Your task to perform on an android device: all mails in gmail Image 0: 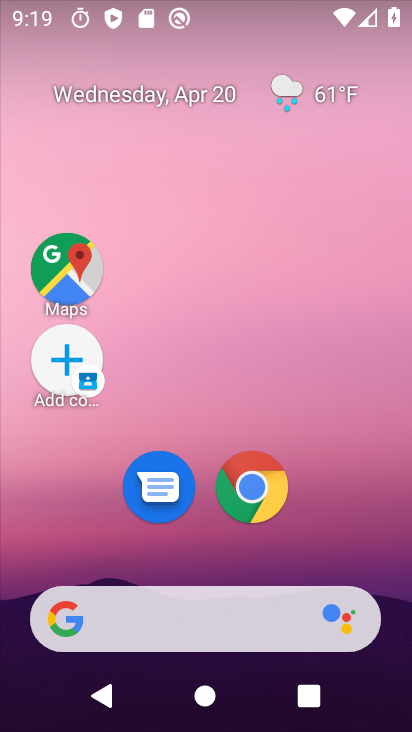
Step 0: drag from (361, 552) to (407, 13)
Your task to perform on an android device: all mails in gmail Image 1: 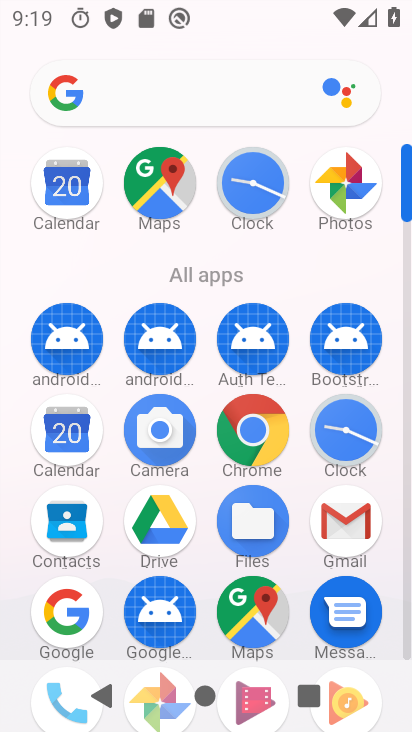
Step 1: click (331, 499)
Your task to perform on an android device: all mails in gmail Image 2: 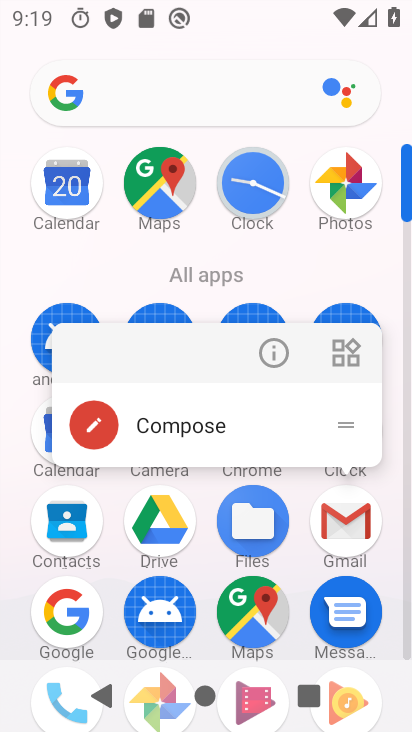
Step 2: click (332, 497)
Your task to perform on an android device: all mails in gmail Image 3: 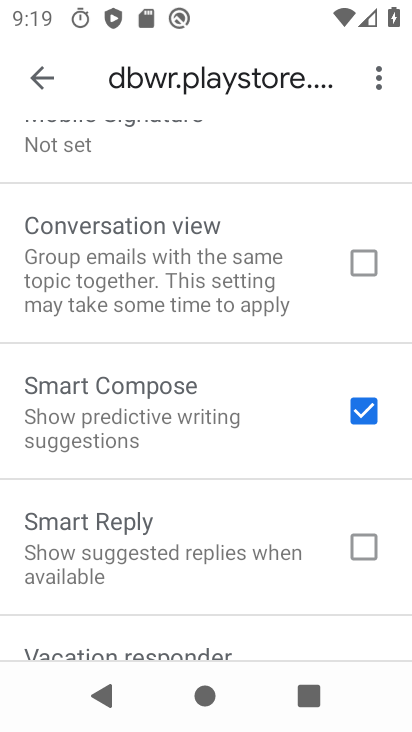
Step 3: click (48, 69)
Your task to perform on an android device: all mails in gmail Image 4: 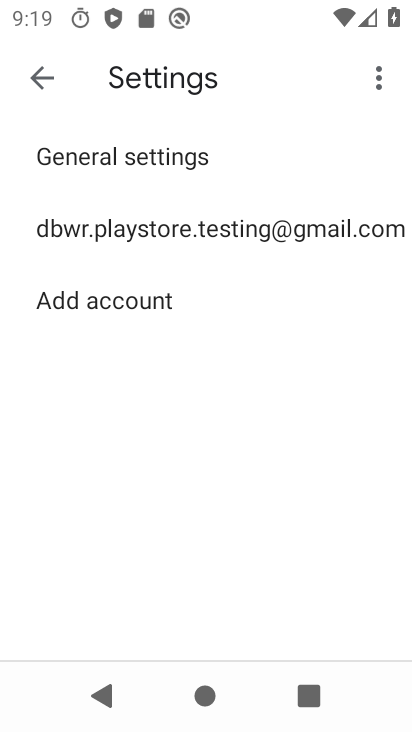
Step 4: click (48, 69)
Your task to perform on an android device: all mails in gmail Image 5: 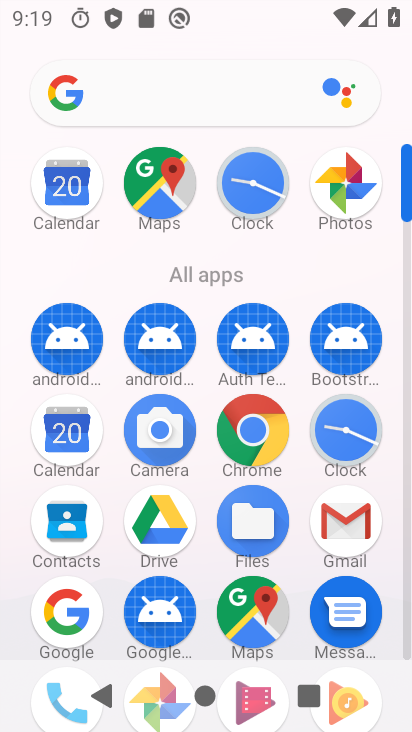
Step 5: click (327, 534)
Your task to perform on an android device: all mails in gmail Image 6: 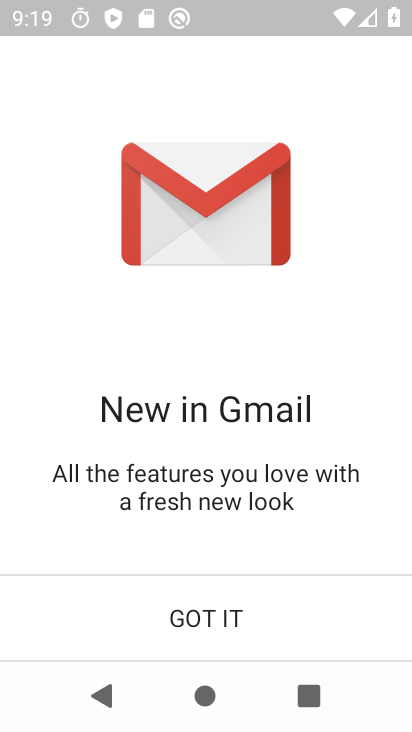
Step 6: click (317, 638)
Your task to perform on an android device: all mails in gmail Image 7: 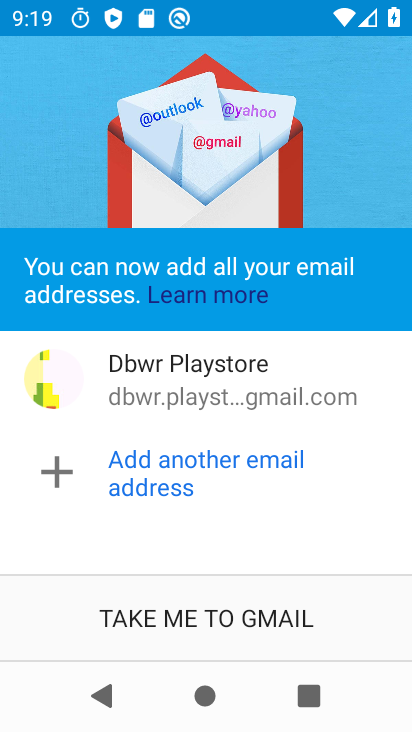
Step 7: click (317, 637)
Your task to perform on an android device: all mails in gmail Image 8: 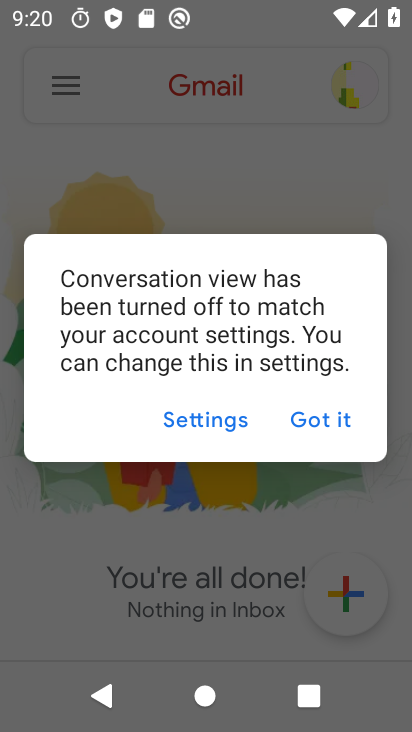
Step 8: click (308, 425)
Your task to perform on an android device: all mails in gmail Image 9: 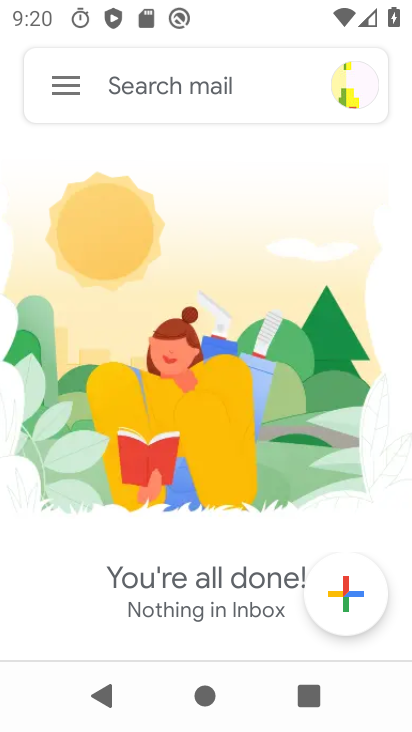
Step 9: click (61, 88)
Your task to perform on an android device: all mails in gmail Image 10: 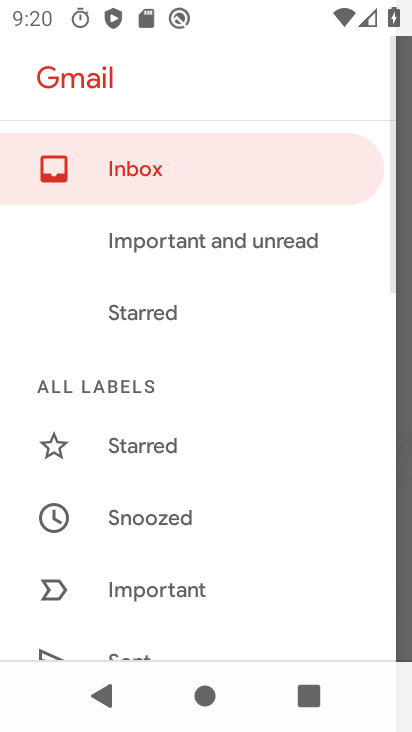
Step 10: drag from (165, 375) to (165, 295)
Your task to perform on an android device: all mails in gmail Image 11: 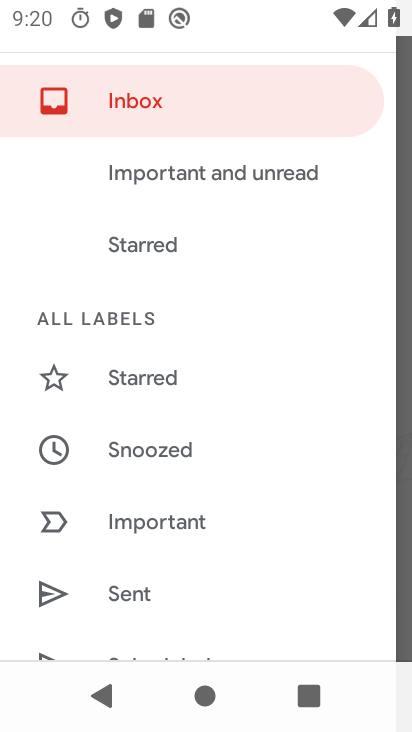
Step 11: drag from (167, 468) to (164, 380)
Your task to perform on an android device: all mails in gmail Image 12: 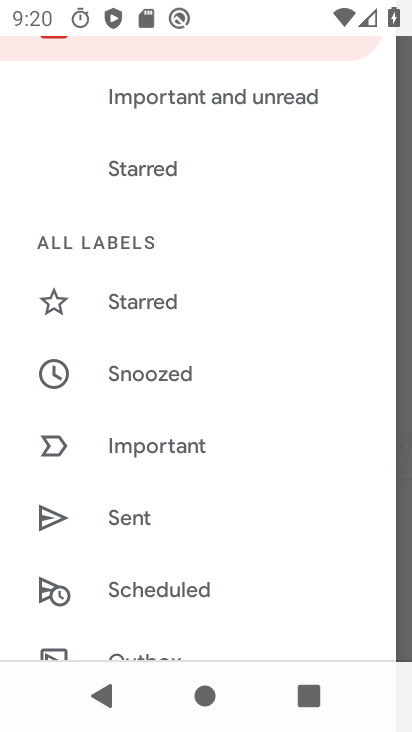
Step 12: drag from (162, 500) to (159, 408)
Your task to perform on an android device: all mails in gmail Image 13: 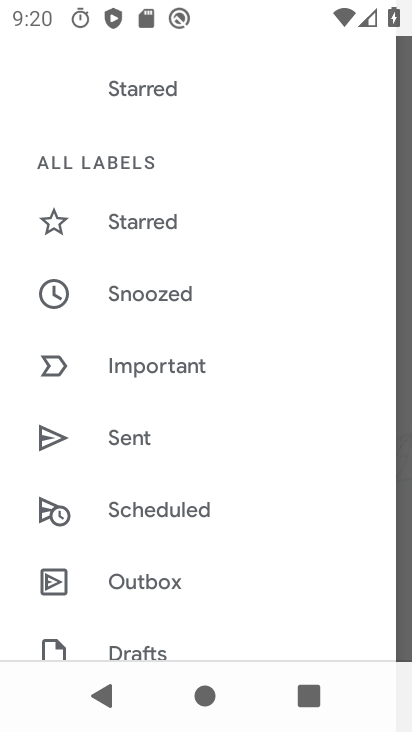
Step 13: drag from (161, 552) to (153, 464)
Your task to perform on an android device: all mails in gmail Image 14: 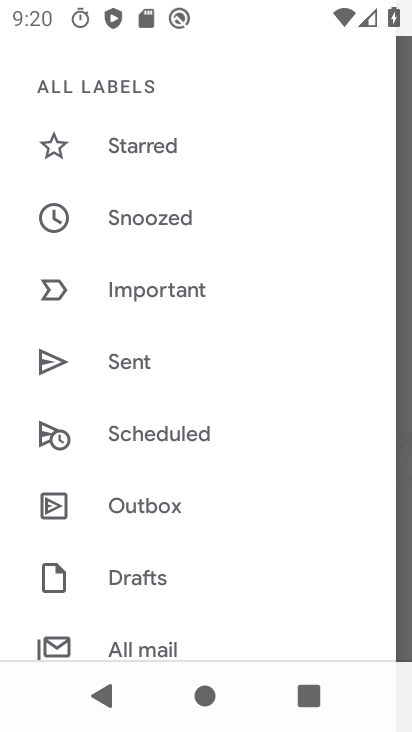
Step 14: drag from (170, 548) to (184, 472)
Your task to perform on an android device: all mails in gmail Image 15: 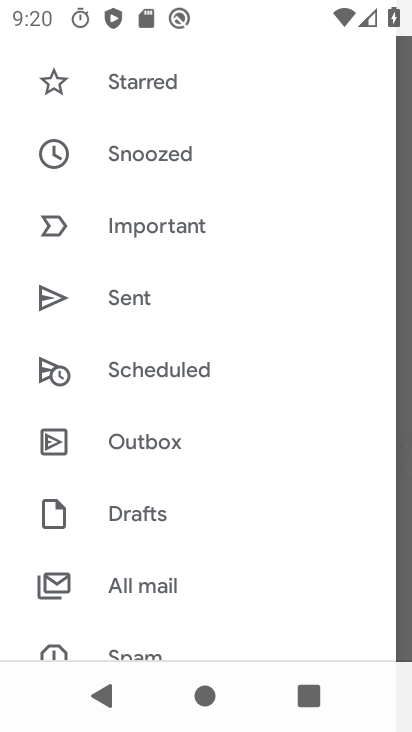
Step 15: drag from (204, 550) to (206, 463)
Your task to perform on an android device: all mails in gmail Image 16: 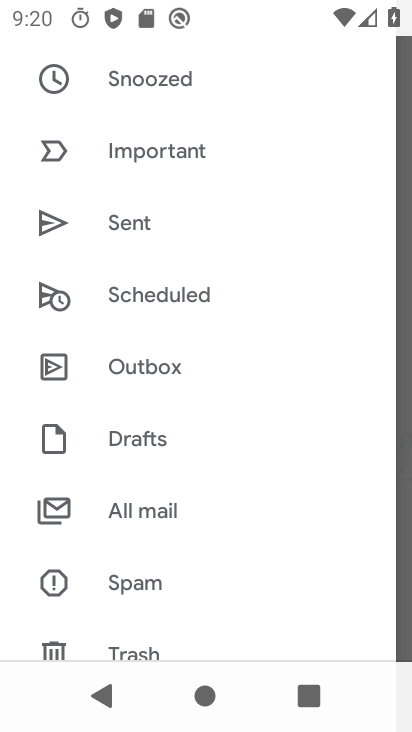
Step 16: click (161, 514)
Your task to perform on an android device: all mails in gmail Image 17: 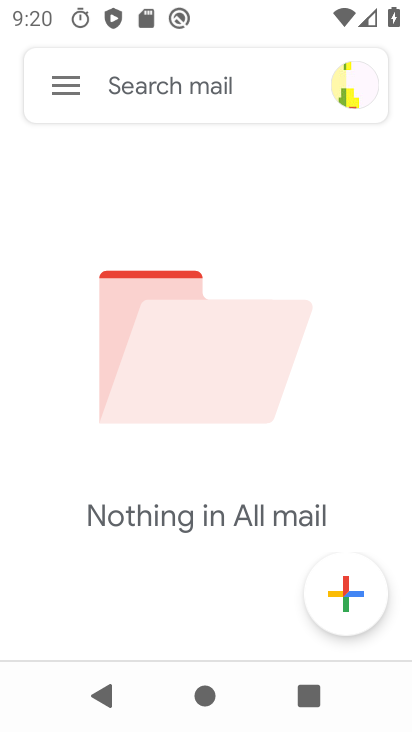
Step 17: task complete